Your task to perform on an android device: star an email in the gmail app Image 0: 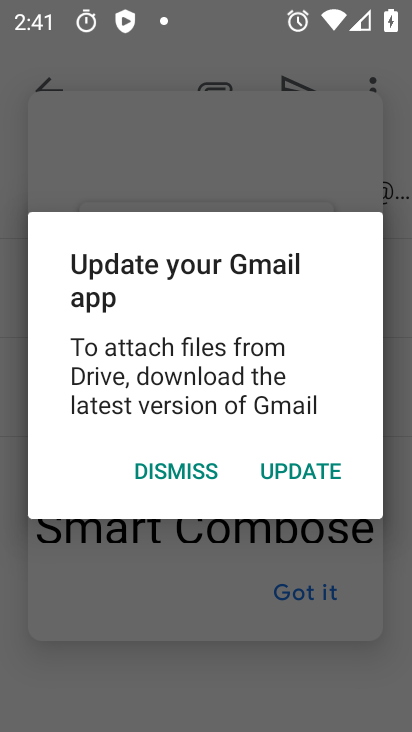
Step 0: press home button
Your task to perform on an android device: star an email in the gmail app Image 1: 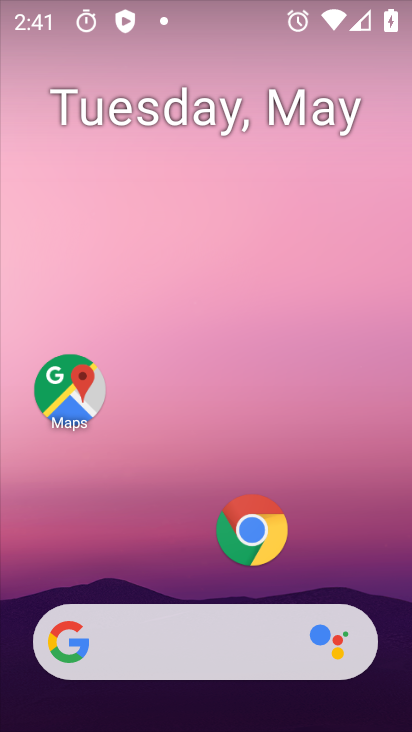
Step 1: drag from (185, 589) to (171, 49)
Your task to perform on an android device: star an email in the gmail app Image 2: 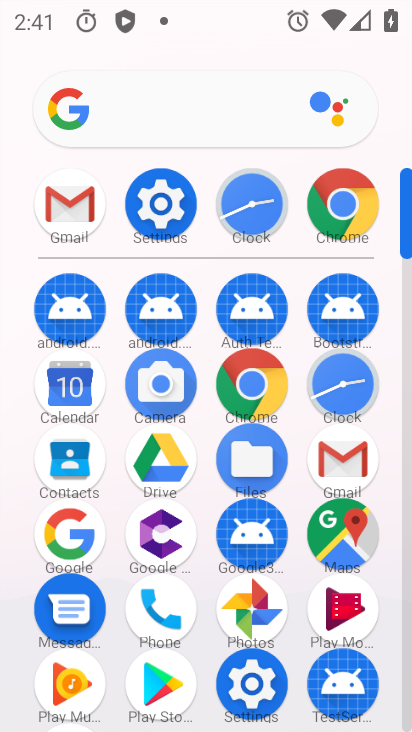
Step 2: click (343, 460)
Your task to perform on an android device: star an email in the gmail app Image 3: 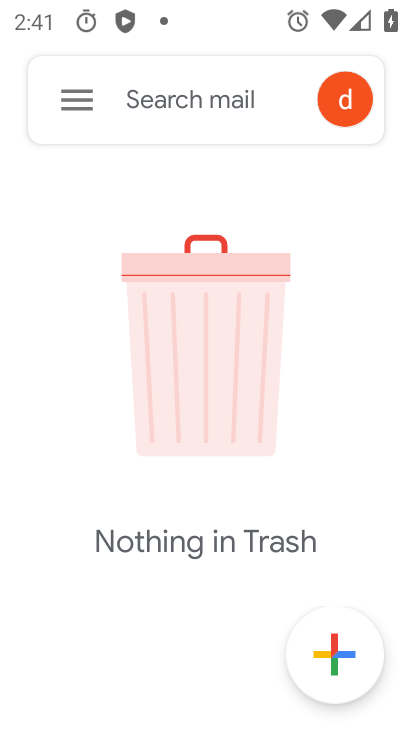
Step 3: click (66, 98)
Your task to perform on an android device: star an email in the gmail app Image 4: 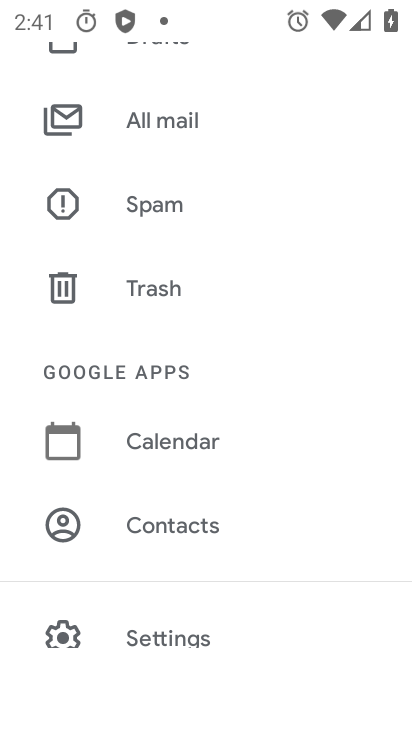
Step 4: drag from (94, 175) to (66, 537)
Your task to perform on an android device: star an email in the gmail app Image 5: 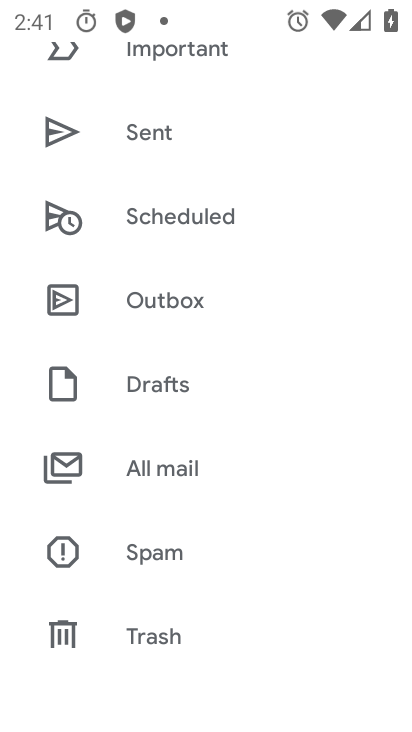
Step 5: drag from (131, 202) to (92, 504)
Your task to perform on an android device: star an email in the gmail app Image 6: 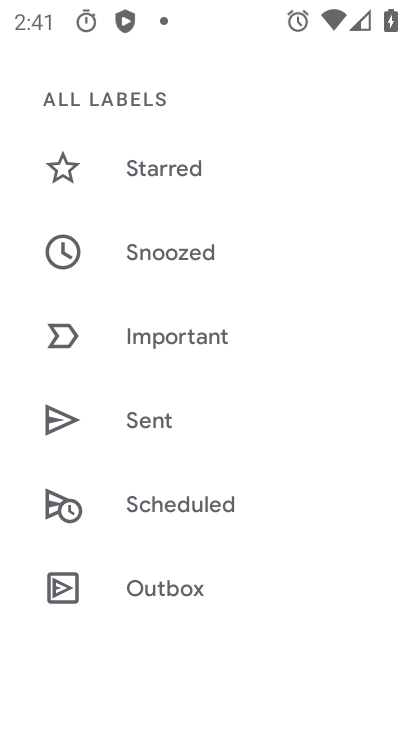
Step 6: click (158, 158)
Your task to perform on an android device: star an email in the gmail app Image 7: 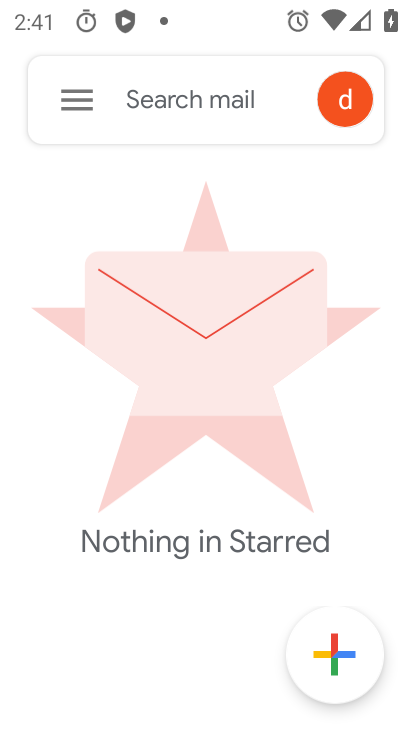
Step 7: task complete